Your task to perform on an android device: Turn on the flashlight Image 0: 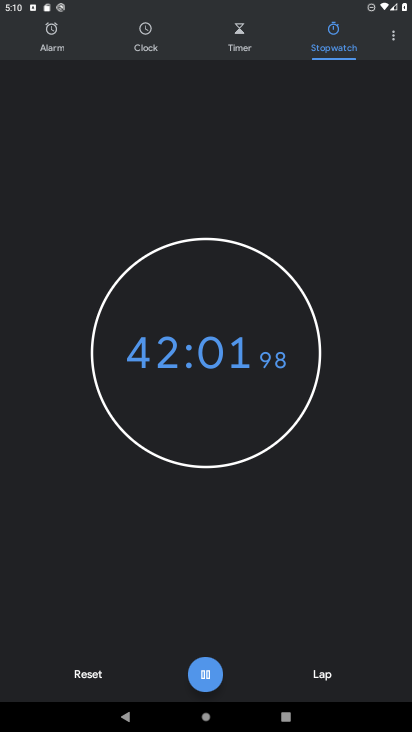
Step 0: press home button
Your task to perform on an android device: Turn on the flashlight Image 1: 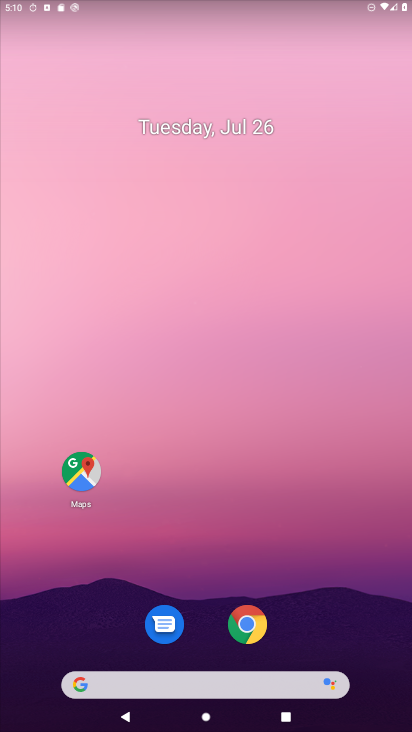
Step 1: task complete